Your task to perform on an android device: What's on my calendar today? Image 0: 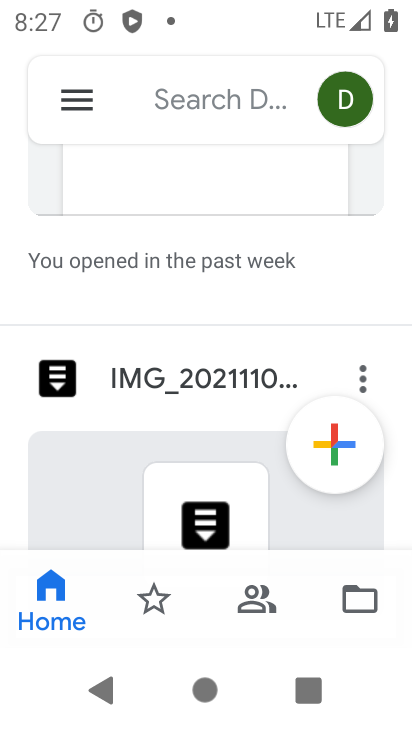
Step 0: drag from (204, 553) to (306, 27)
Your task to perform on an android device: What's on my calendar today? Image 1: 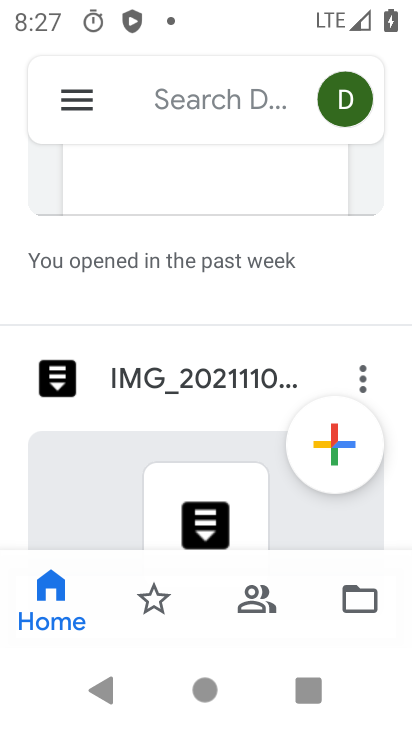
Step 1: press home button
Your task to perform on an android device: What's on my calendar today? Image 2: 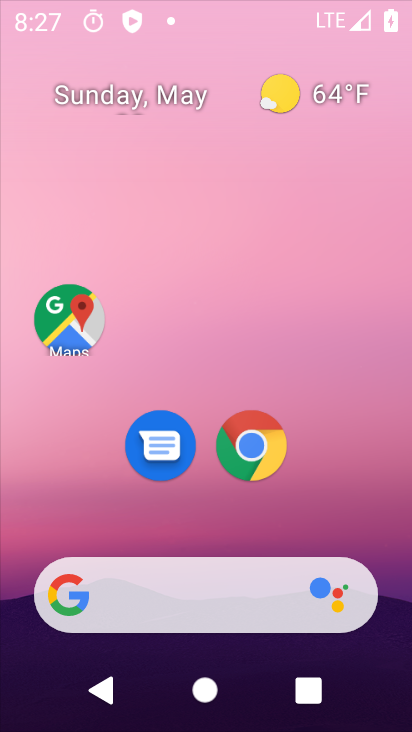
Step 2: drag from (234, 512) to (300, 0)
Your task to perform on an android device: What's on my calendar today? Image 3: 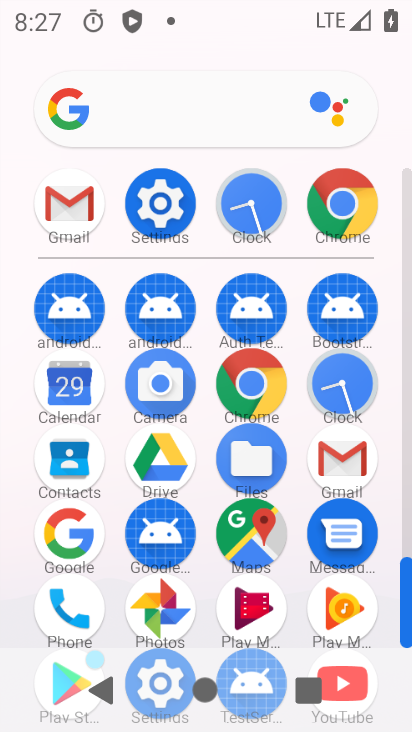
Step 3: click (65, 374)
Your task to perform on an android device: What's on my calendar today? Image 4: 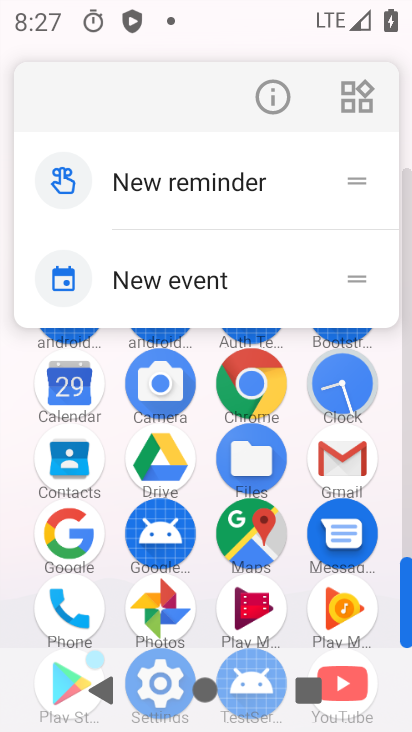
Step 4: click (278, 109)
Your task to perform on an android device: What's on my calendar today? Image 5: 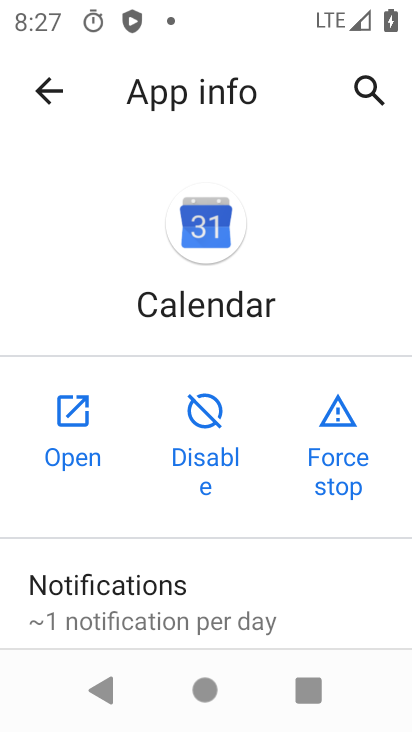
Step 5: click (67, 385)
Your task to perform on an android device: What's on my calendar today? Image 6: 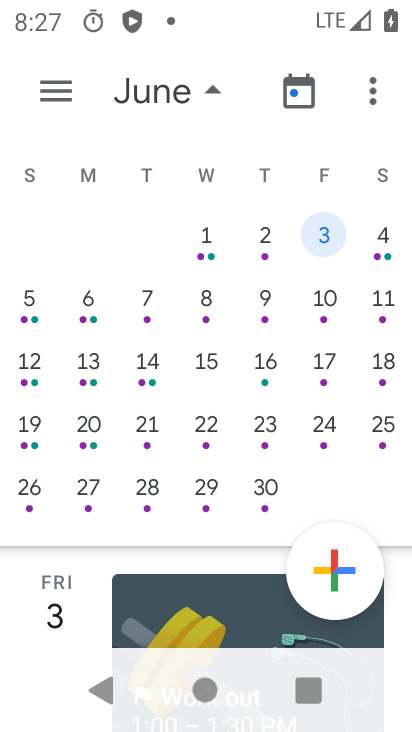
Step 6: drag from (29, 406) to (410, 248)
Your task to perform on an android device: What's on my calendar today? Image 7: 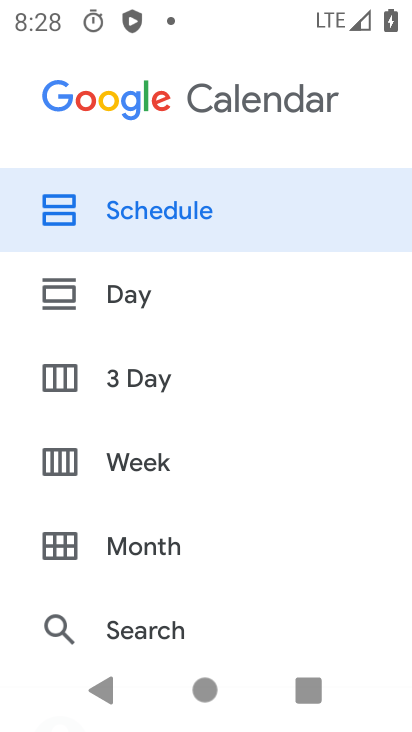
Step 7: press back button
Your task to perform on an android device: What's on my calendar today? Image 8: 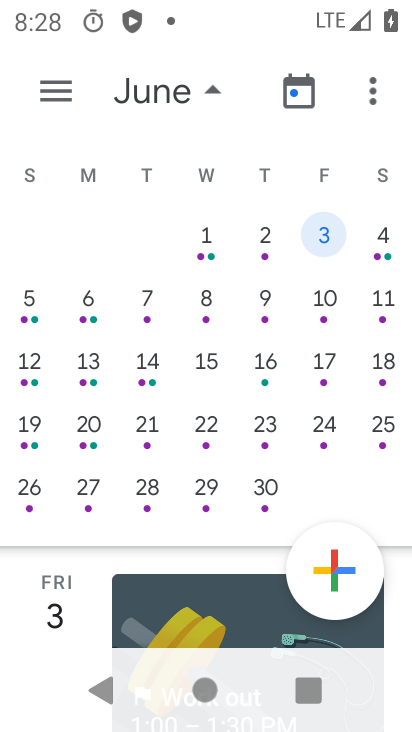
Step 8: drag from (85, 465) to (224, 731)
Your task to perform on an android device: What's on my calendar today? Image 9: 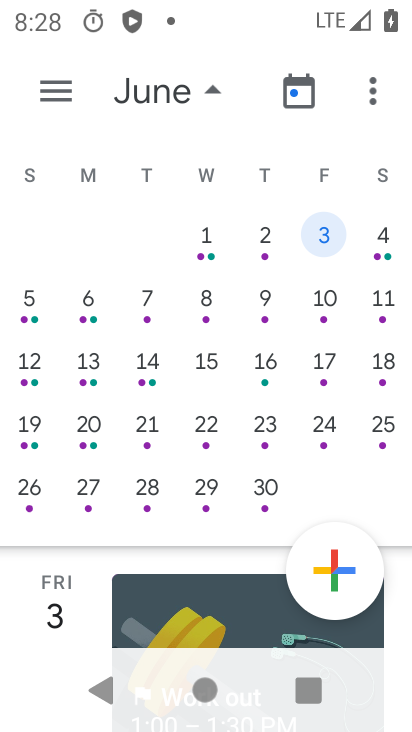
Step 9: drag from (70, 258) to (343, 505)
Your task to perform on an android device: What's on my calendar today? Image 10: 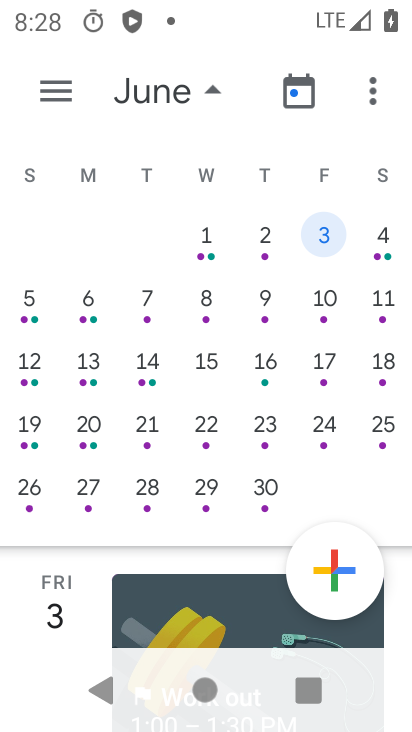
Step 10: drag from (59, 443) to (368, 376)
Your task to perform on an android device: What's on my calendar today? Image 11: 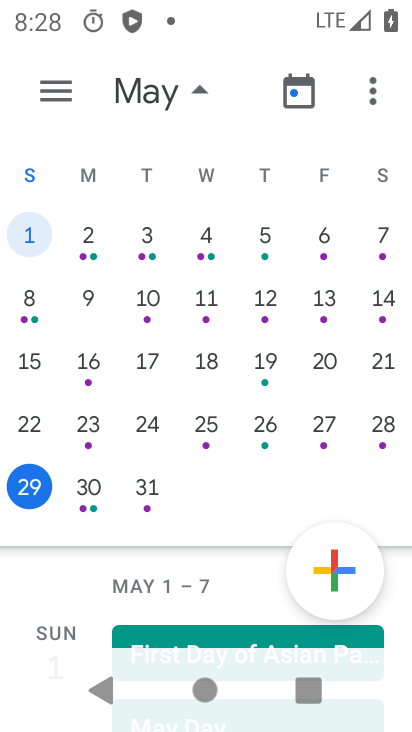
Step 11: click (26, 493)
Your task to perform on an android device: What's on my calendar today? Image 12: 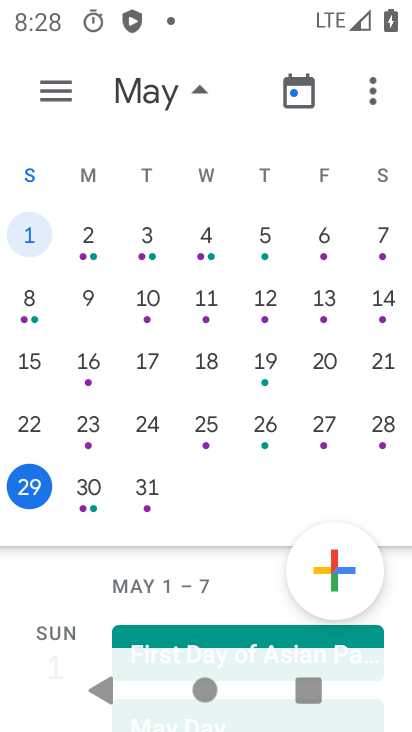
Step 12: task complete